Your task to perform on an android device: change text size in settings app Image 0: 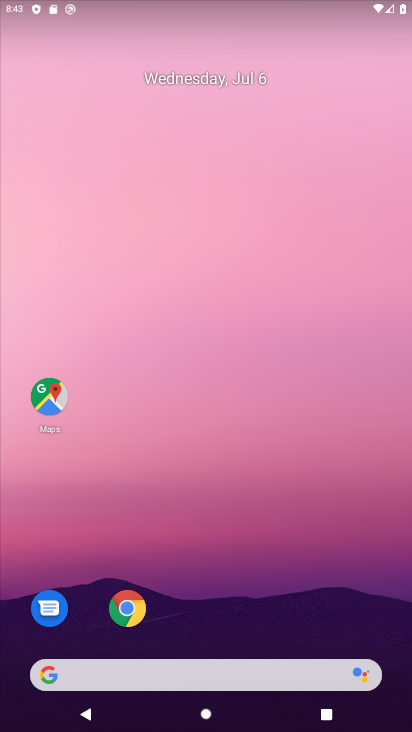
Step 0: drag from (238, 625) to (231, 12)
Your task to perform on an android device: change text size in settings app Image 1: 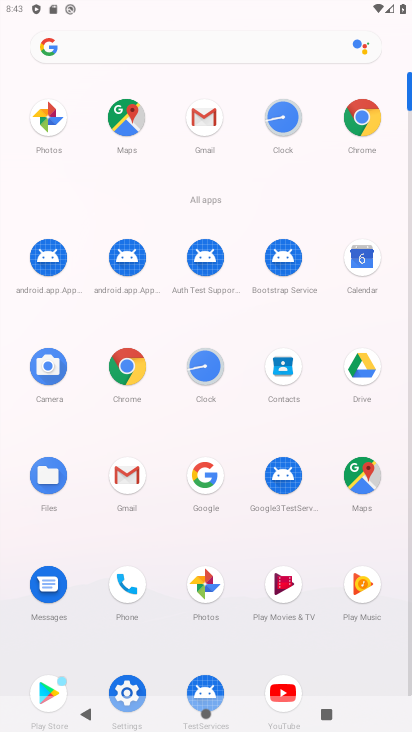
Step 1: click (134, 683)
Your task to perform on an android device: change text size in settings app Image 2: 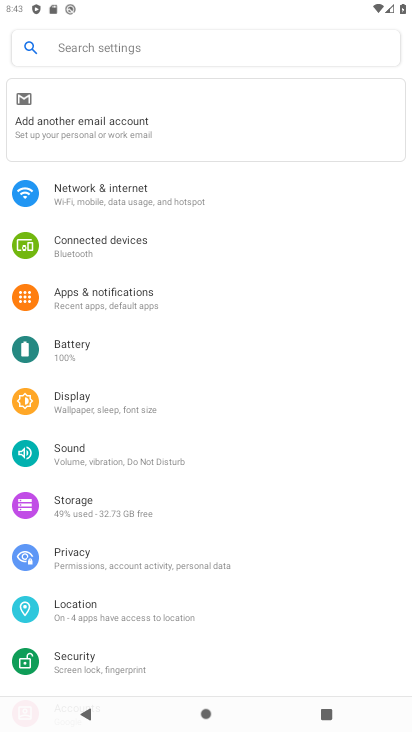
Step 2: click (196, 409)
Your task to perform on an android device: change text size in settings app Image 3: 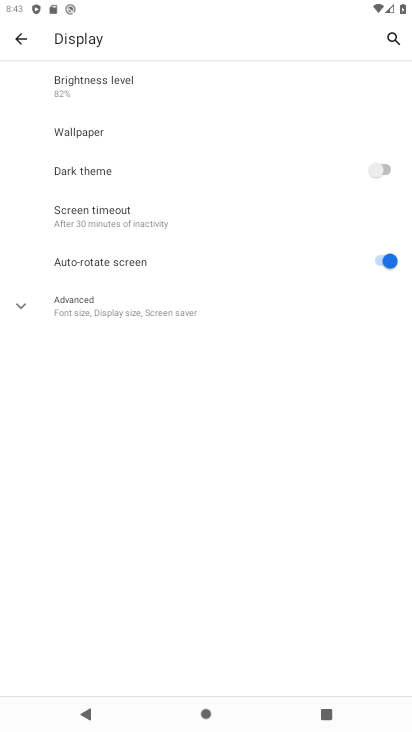
Step 3: click (200, 315)
Your task to perform on an android device: change text size in settings app Image 4: 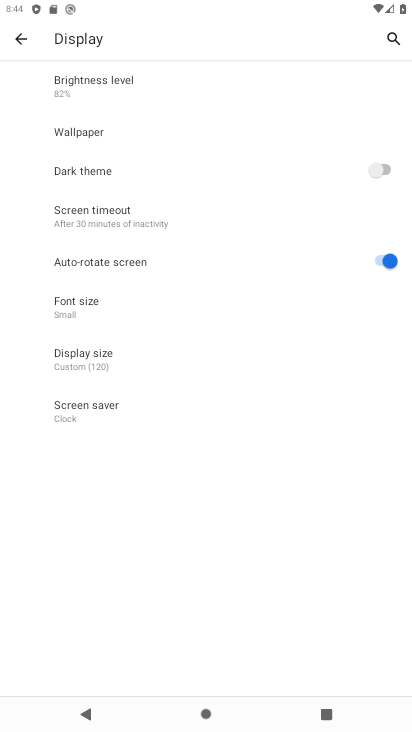
Step 4: click (193, 317)
Your task to perform on an android device: change text size in settings app Image 5: 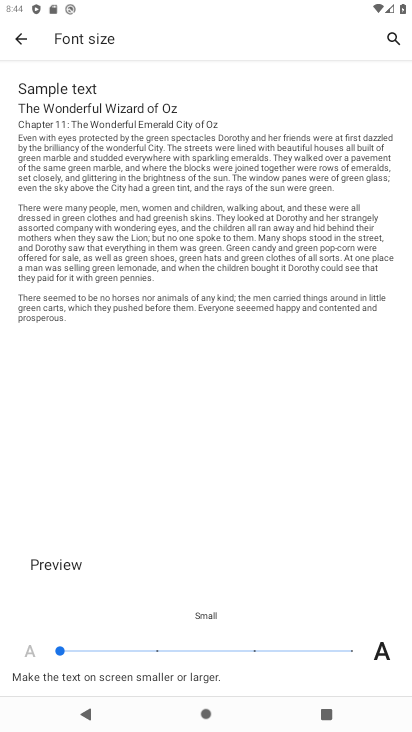
Step 5: click (123, 648)
Your task to perform on an android device: change text size in settings app Image 6: 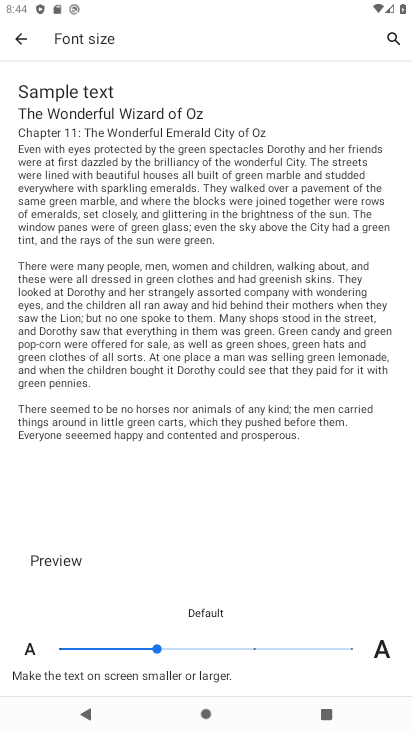
Step 6: task complete